Your task to perform on an android device: turn pop-ups off in chrome Image 0: 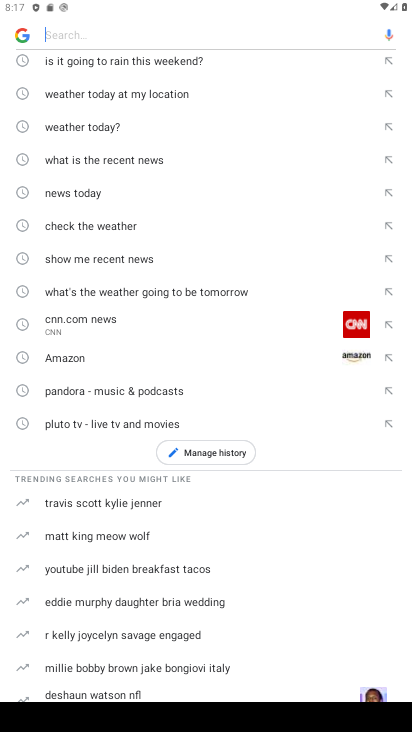
Step 0: press home button
Your task to perform on an android device: turn pop-ups off in chrome Image 1: 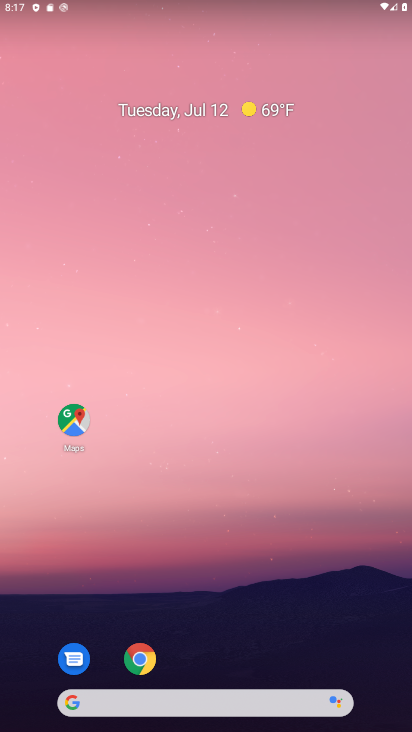
Step 1: click (141, 661)
Your task to perform on an android device: turn pop-ups off in chrome Image 2: 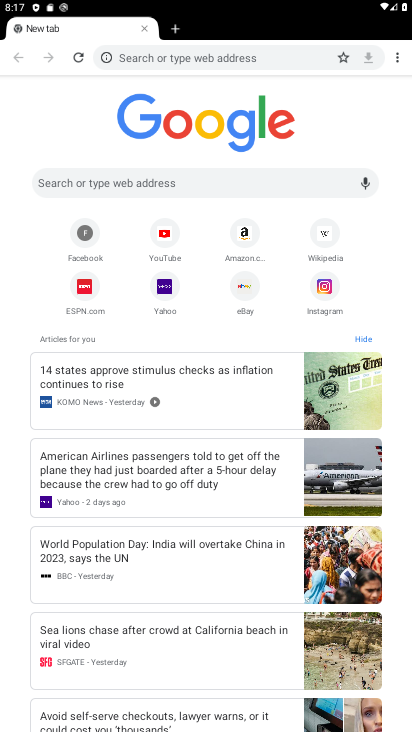
Step 2: click (396, 62)
Your task to perform on an android device: turn pop-ups off in chrome Image 3: 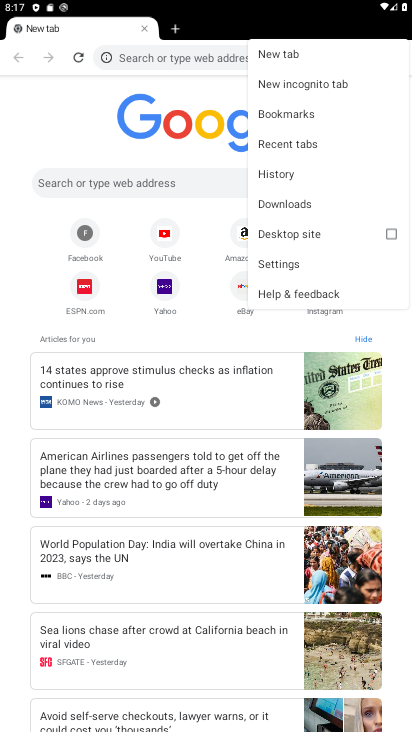
Step 3: click (277, 264)
Your task to perform on an android device: turn pop-ups off in chrome Image 4: 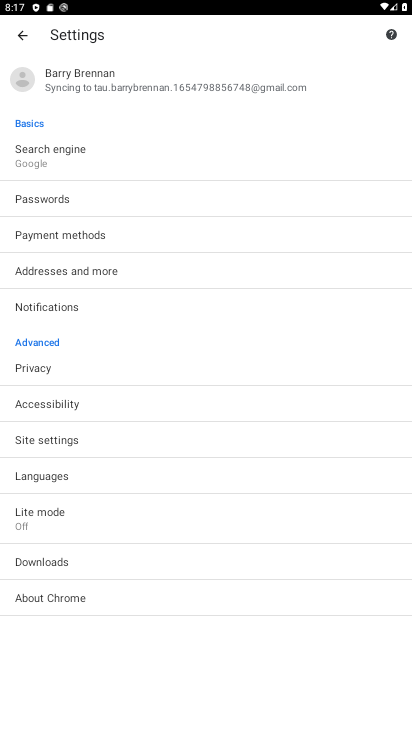
Step 4: click (49, 442)
Your task to perform on an android device: turn pop-ups off in chrome Image 5: 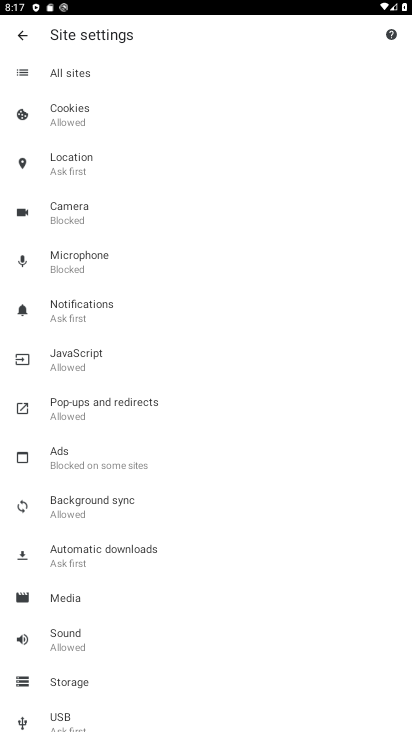
Step 5: click (78, 405)
Your task to perform on an android device: turn pop-ups off in chrome Image 6: 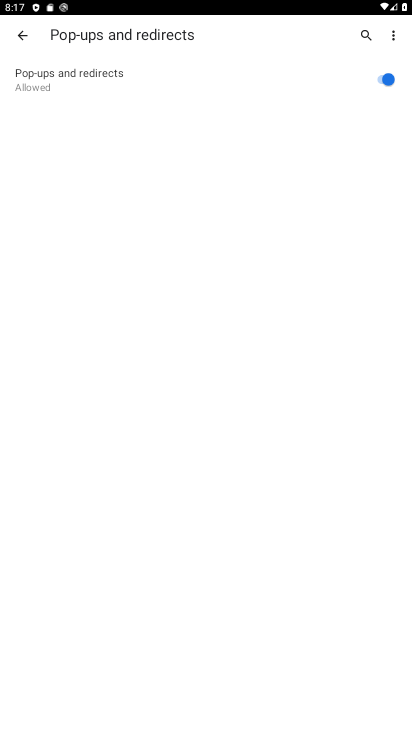
Step 6: click (384, 78)
Your task to perform on an android device: turn pop-ups off in chrome Image 7: 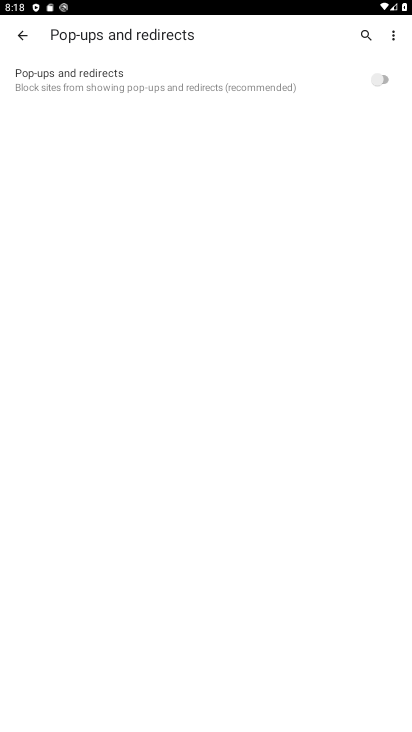
Step 7: task complete